Your task to perform on an android device: Search for "beats solo 3" on target, select the first entry, and add it to the cart. Image 0: 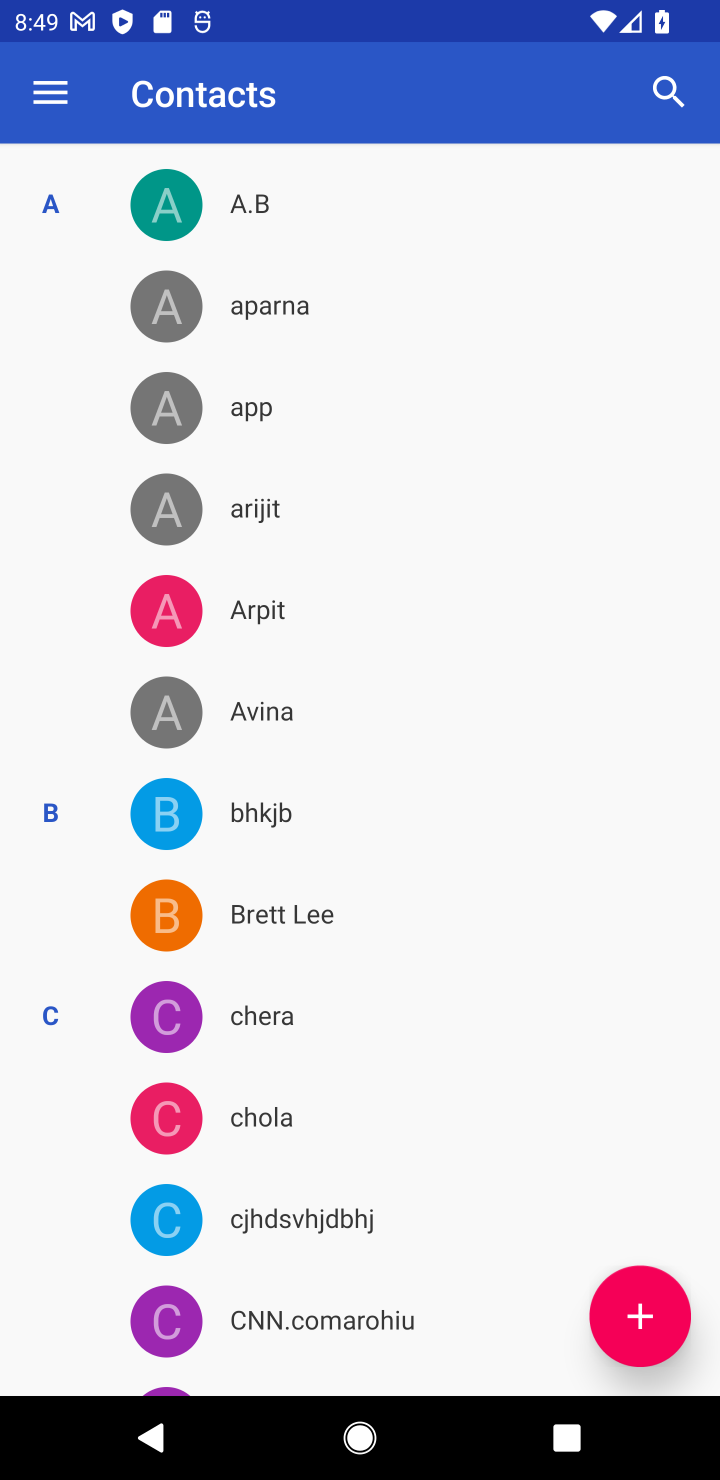
Step 0: press home button
Your task to perform on an android device: Search for "beats solo 3" on target, select the first entry, and add it to the cart. Image 1: 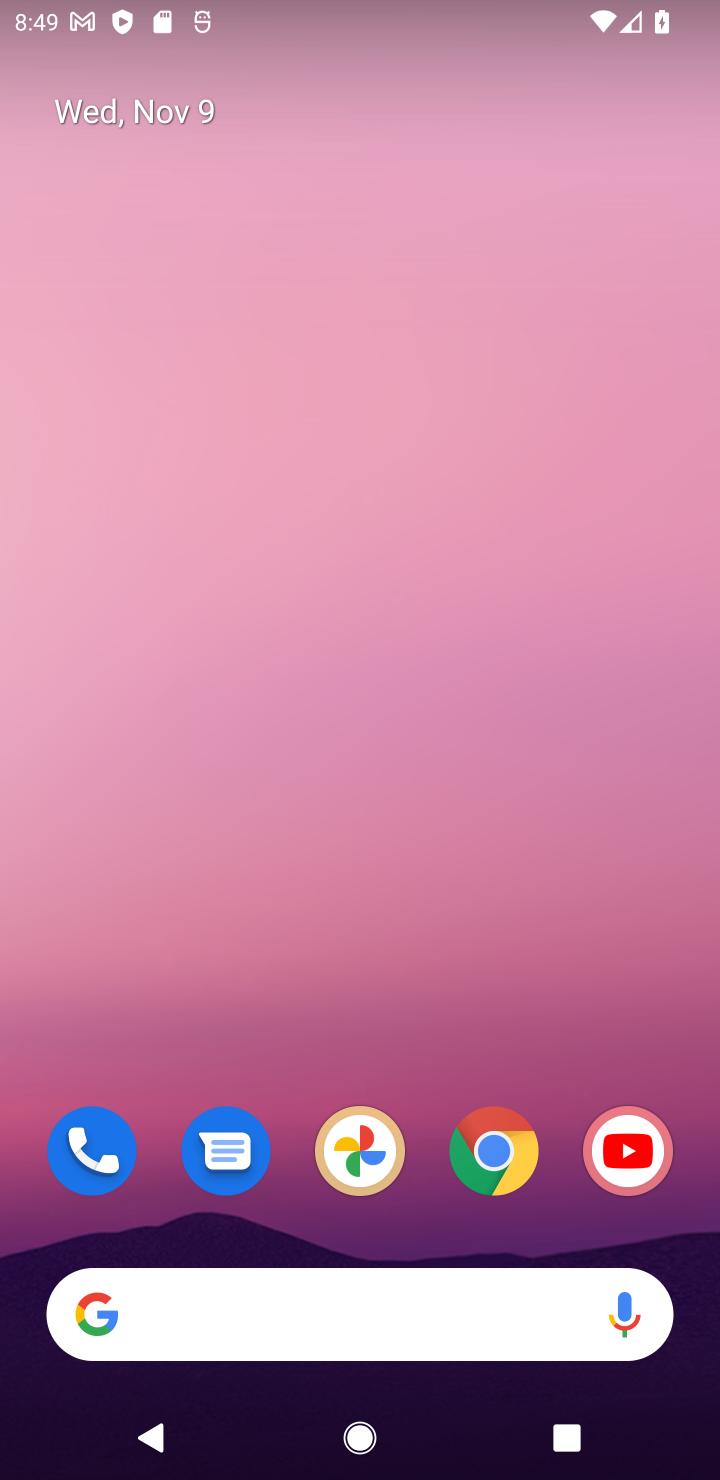
Step 1: click (490, 1160)
Your task to perform on an android device: Search for "beats solo 3" on target, select the first entry, and add it to the cart. Image 2: 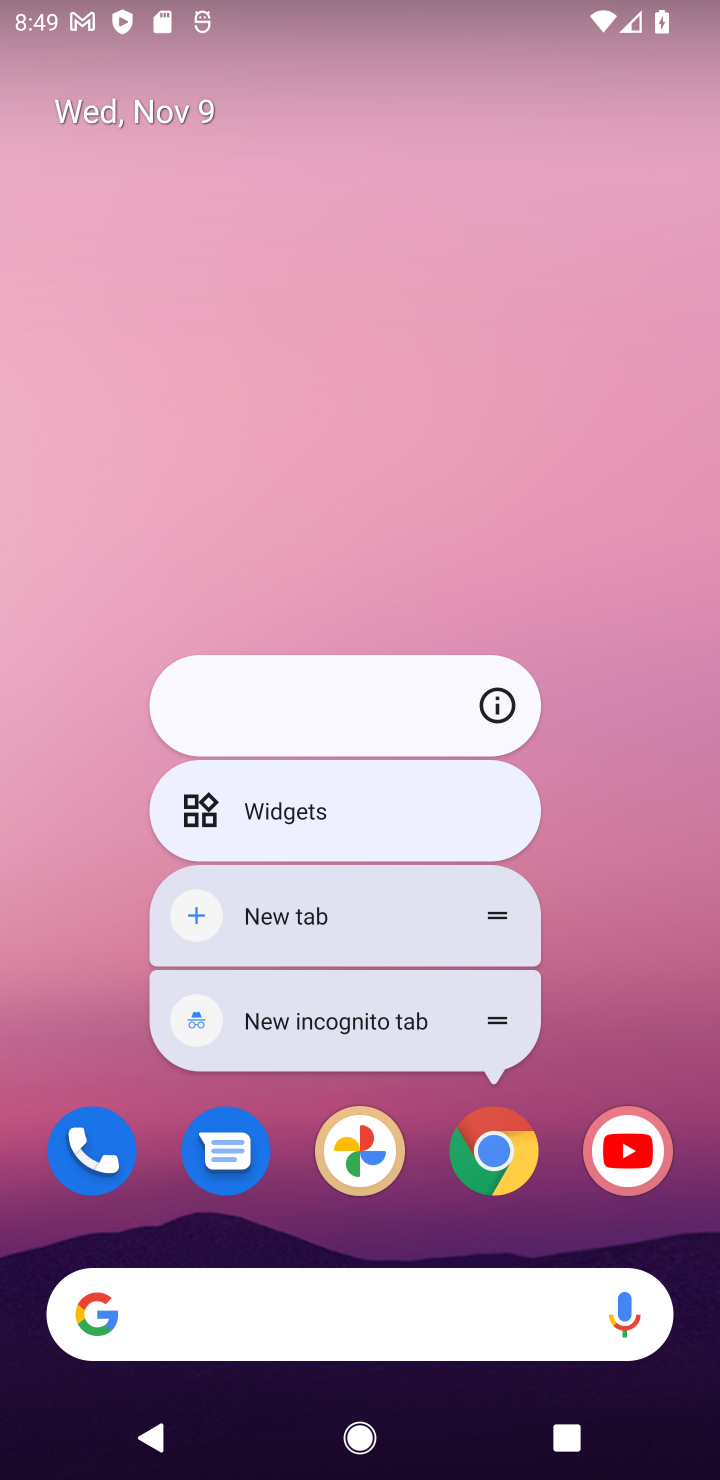
Step 2: click (470, 1177)
Your task to perform on an android device: Search for "beats solo 3" on target, select the first entry, and add it to the cart. Image 3: 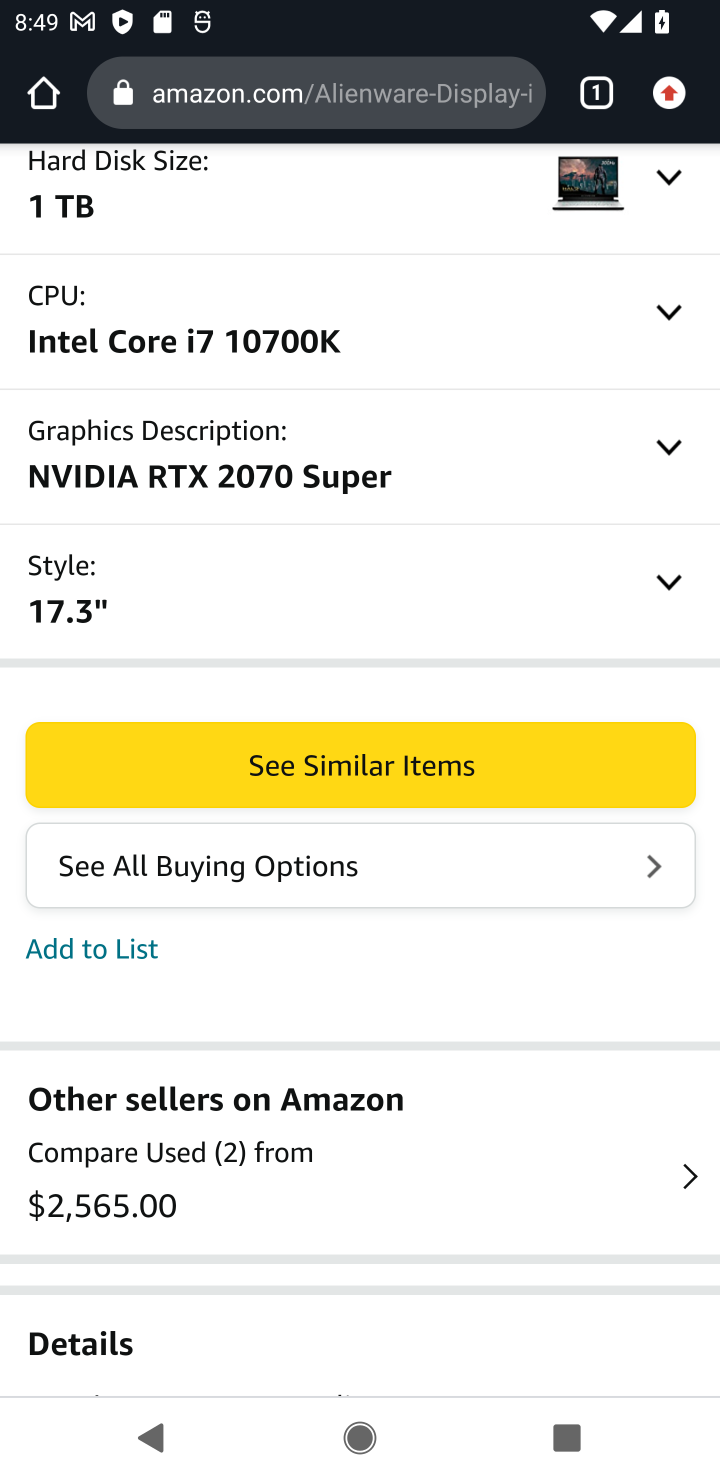
Step 3: click (272, 109)
Your task to perform on an android device: Search for "beats solo 3" on target, select the first entry, and add it to the cart. Image 4: 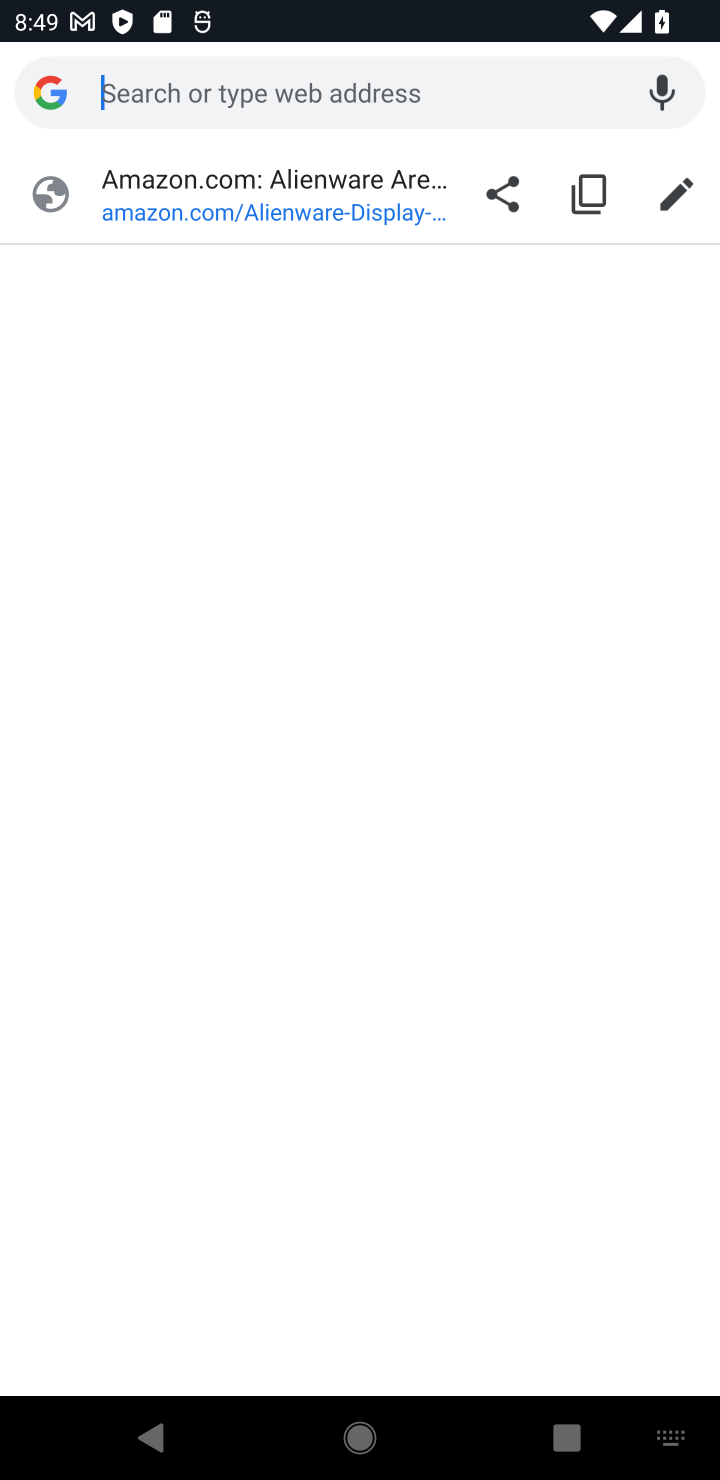
Step 4: type "target"
Your task to perform on an android device: Search for "beats solo 3" on target, select the first entry, and add it to the cart. Image 5: 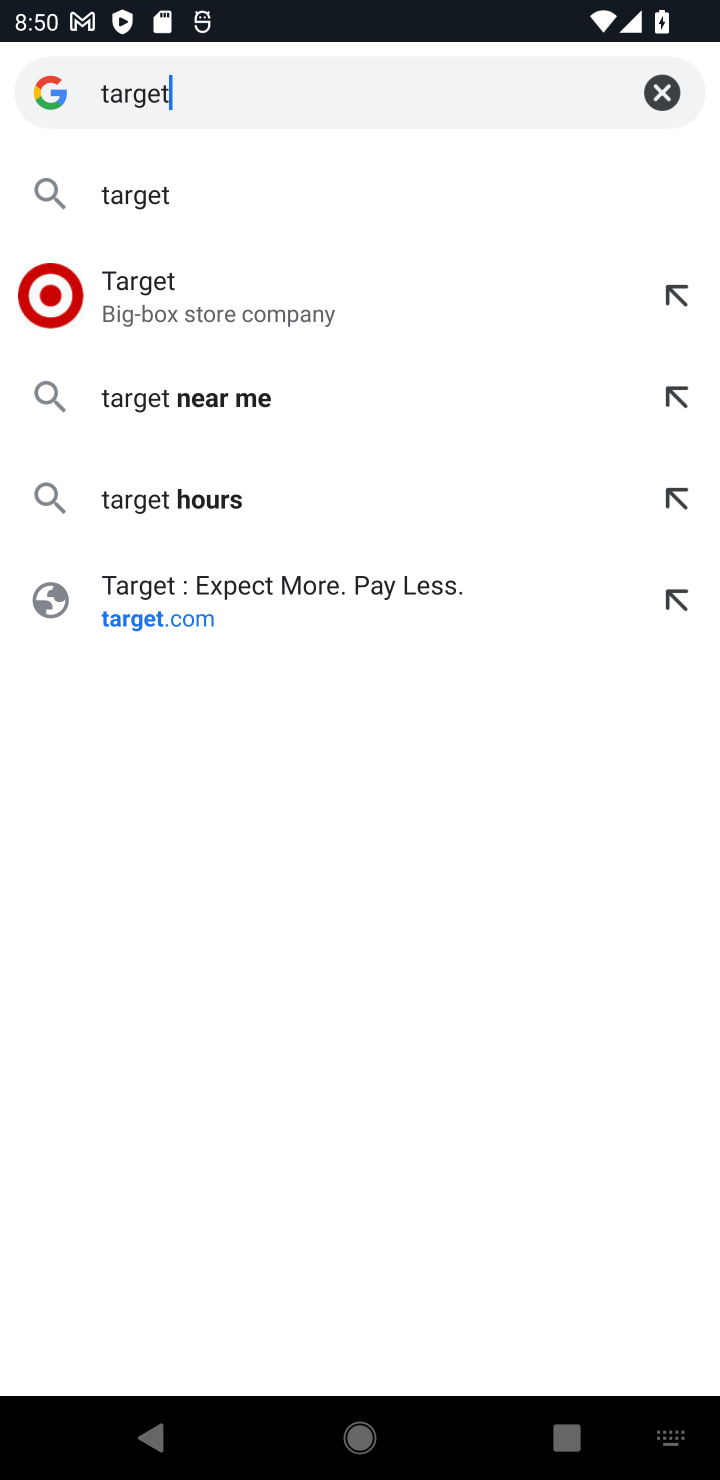
Step 5: click (233, 294)
Your task to perform on an android device: Search for "beats solo 3" on target, select the first entry, and add it to the cart. Image 6: 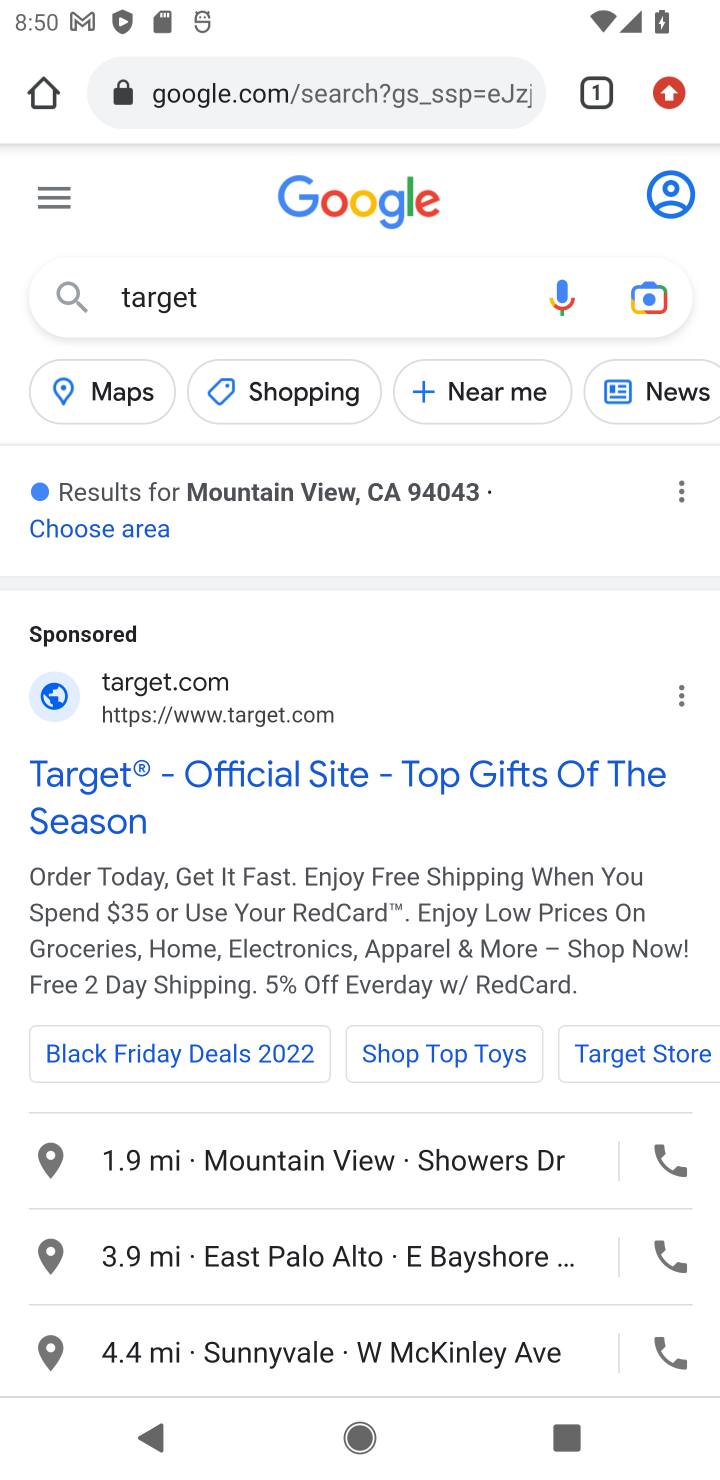
Step 6: drag from (246, 1173) to (240, 793)
Your task to perform on an android device: Search for "beats solo 3" on target, select the first entry, and add it to the cart. Image 7: 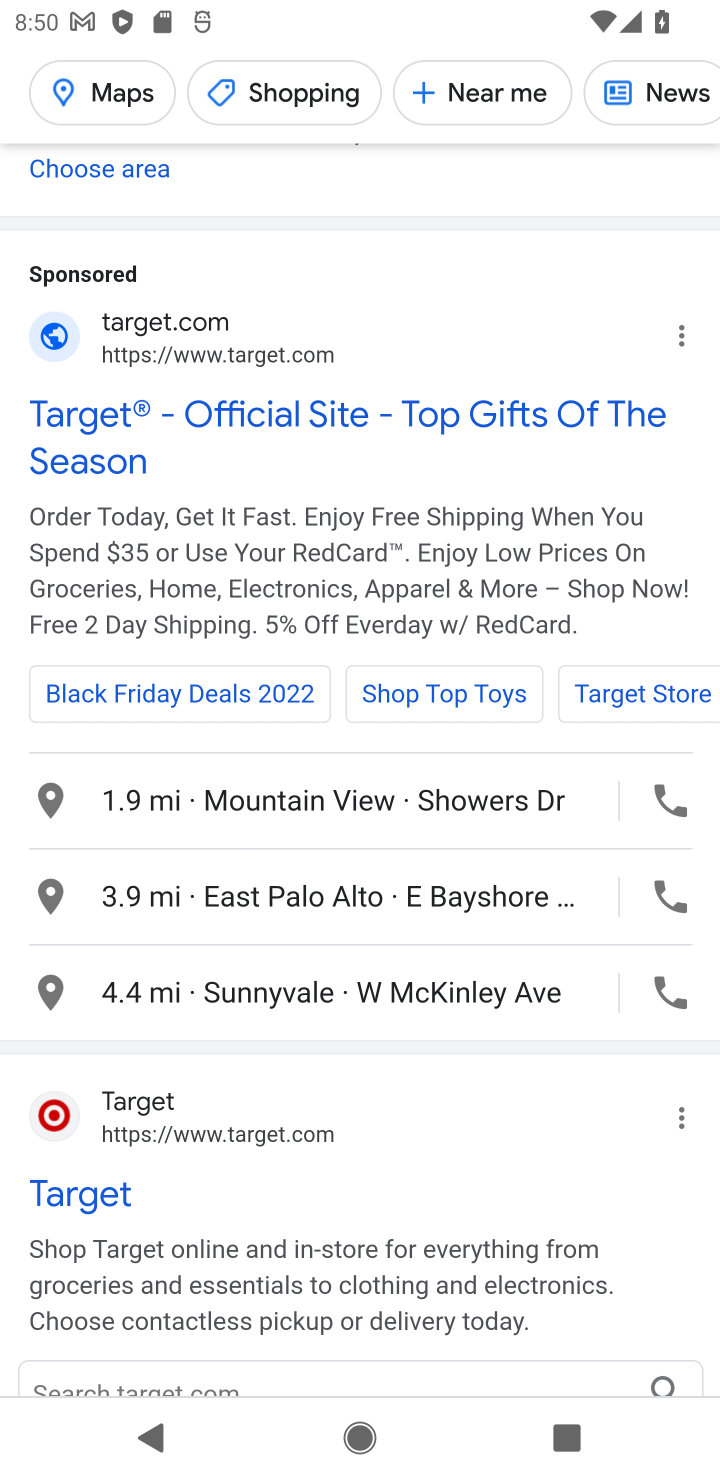
Step 7: click (261, 417)
Your task to perform on an android device: Search for "beats solo 3" on target, select the first entry, and add it to the cart. Image 8: 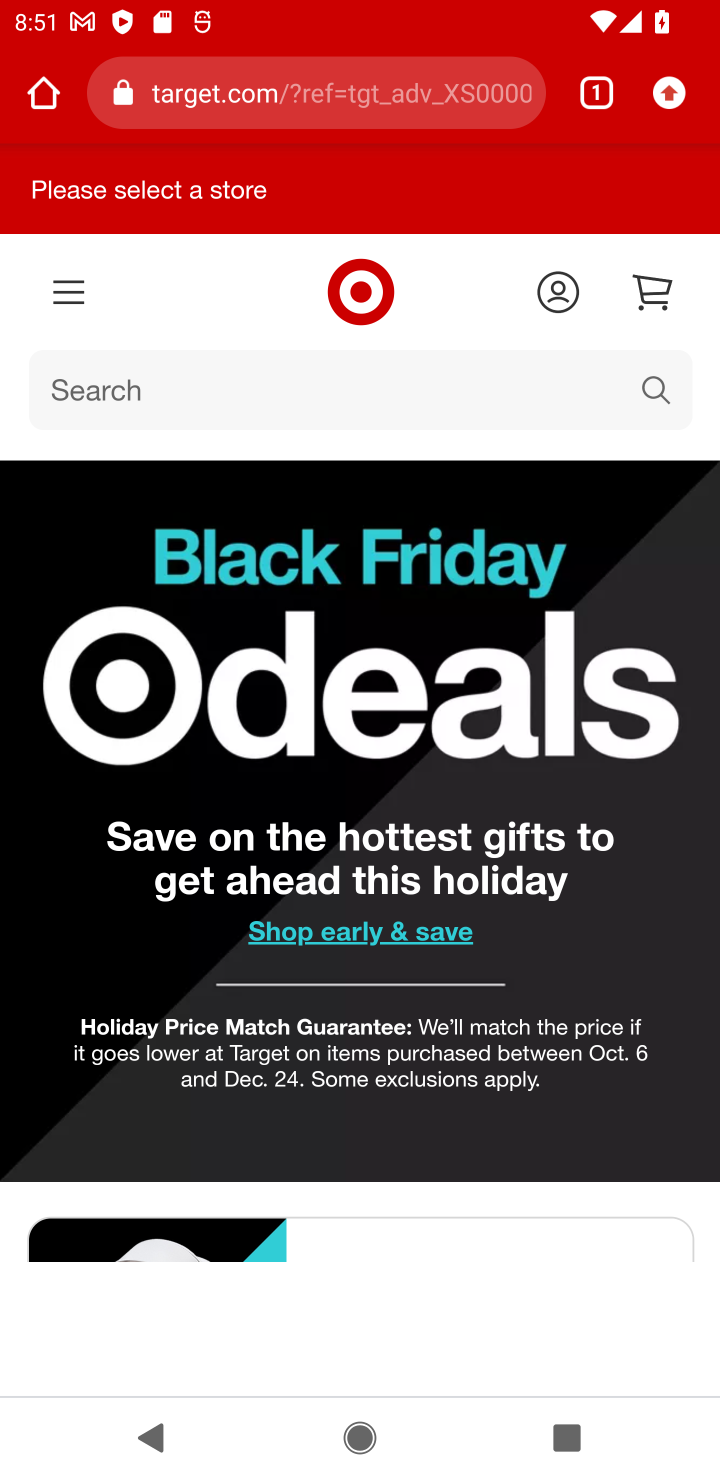
Step 8: click (474, 383)
Your task to perform on an android device: Search for "beats solo 3" on target, select the first entry, and add it to the cart. Image 9: 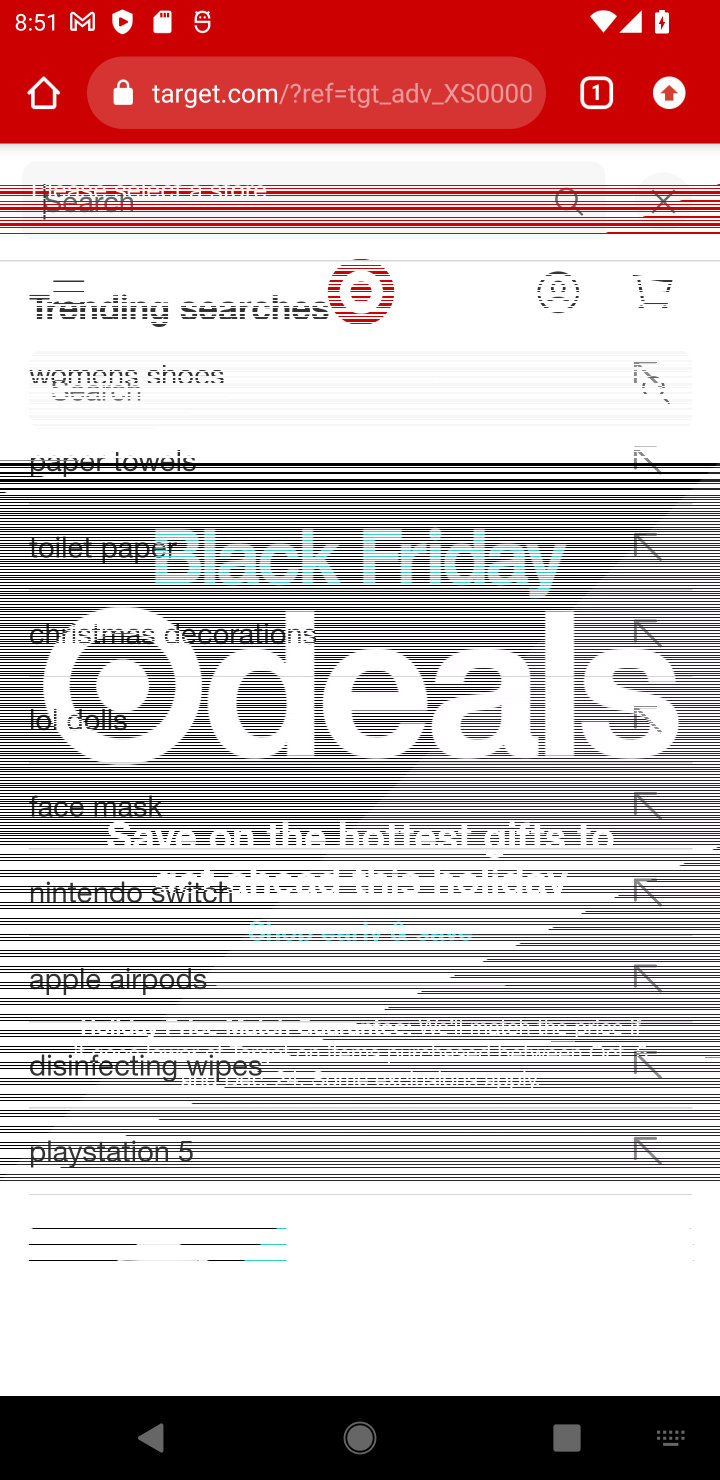
Step 9: type "beats solo 3"
Your task to perform on an android device: Search for "beats solo 3" on target, select the first entry, and add it to the cart. Image 10: 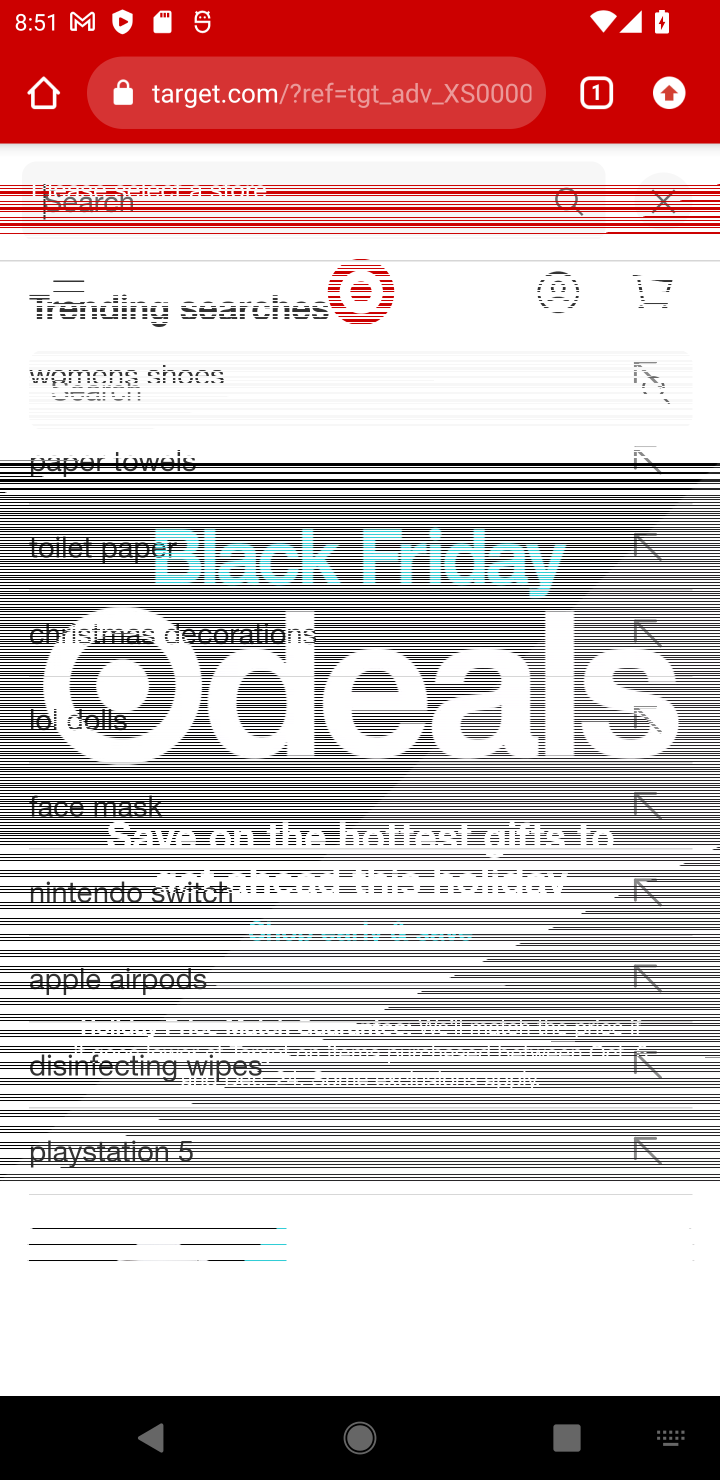
Step 10: press enter
Your task to perform on an android device: Search for "beats solo 3" on target, select the first entry, and add it to the cart. Image 11: 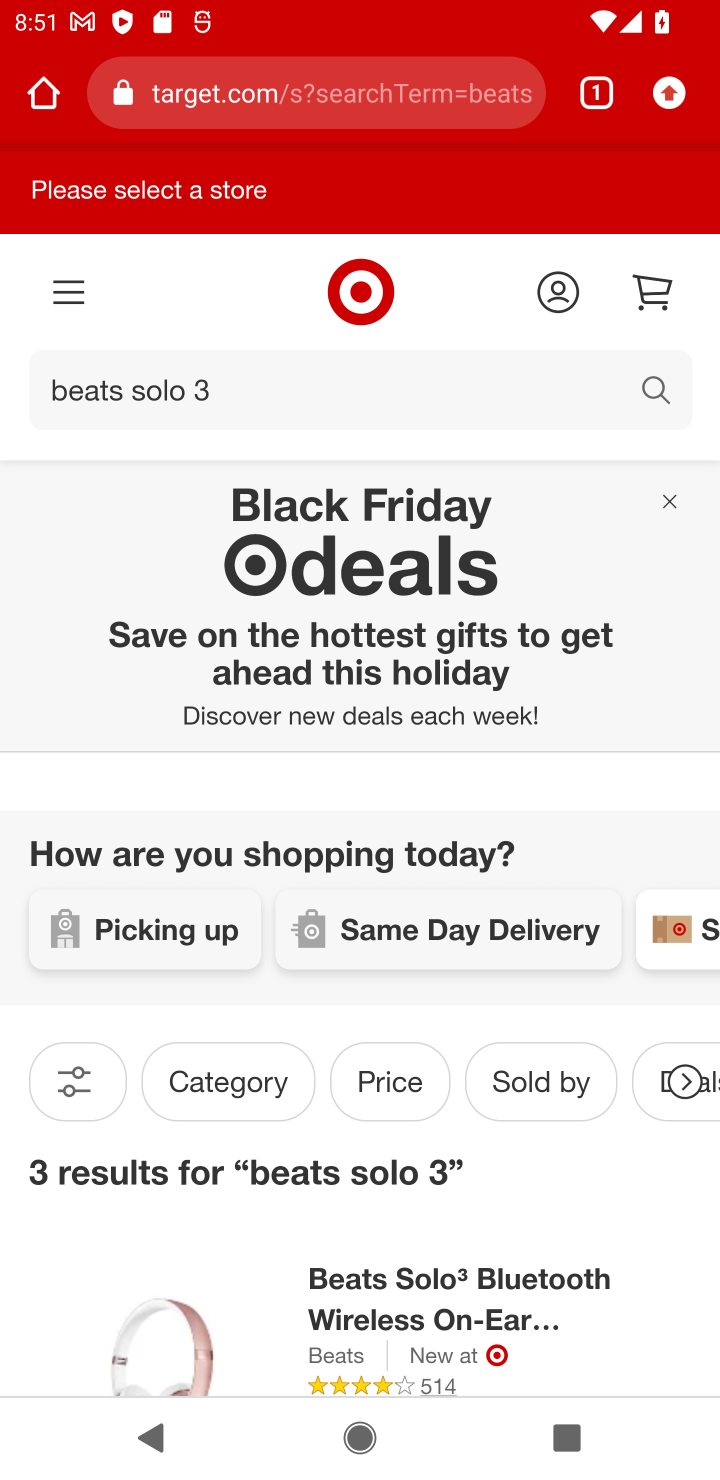
Step 11: drag from (302, 1121) to (314, 756)
Your task to perform on an android device: Search for "beats solo 3" on target, select the first entry, and add it to the cart. Image 12: 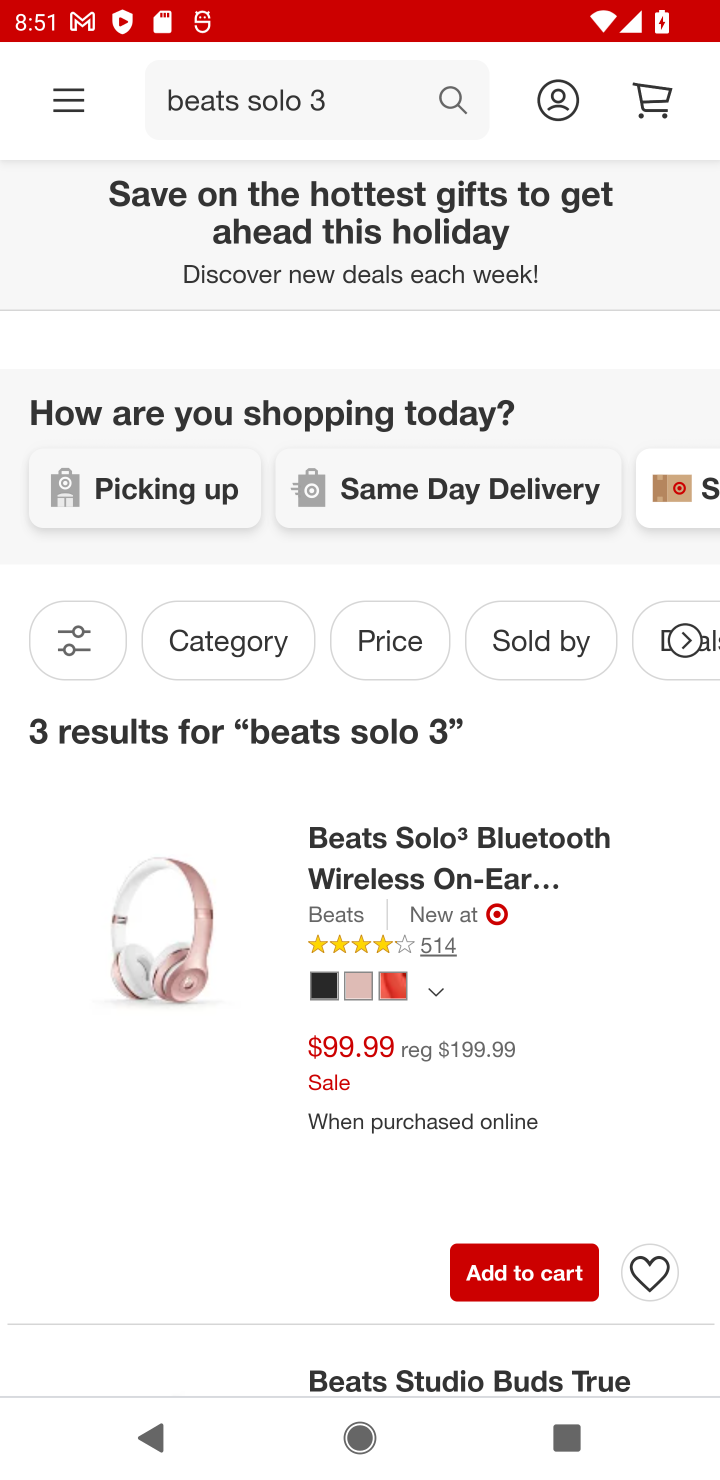
Step 12: click (468, 1282)
Your task to perform on an android device: Search for "beats solo 3" on target, select the first entry, and add it to the cart. Image 13: 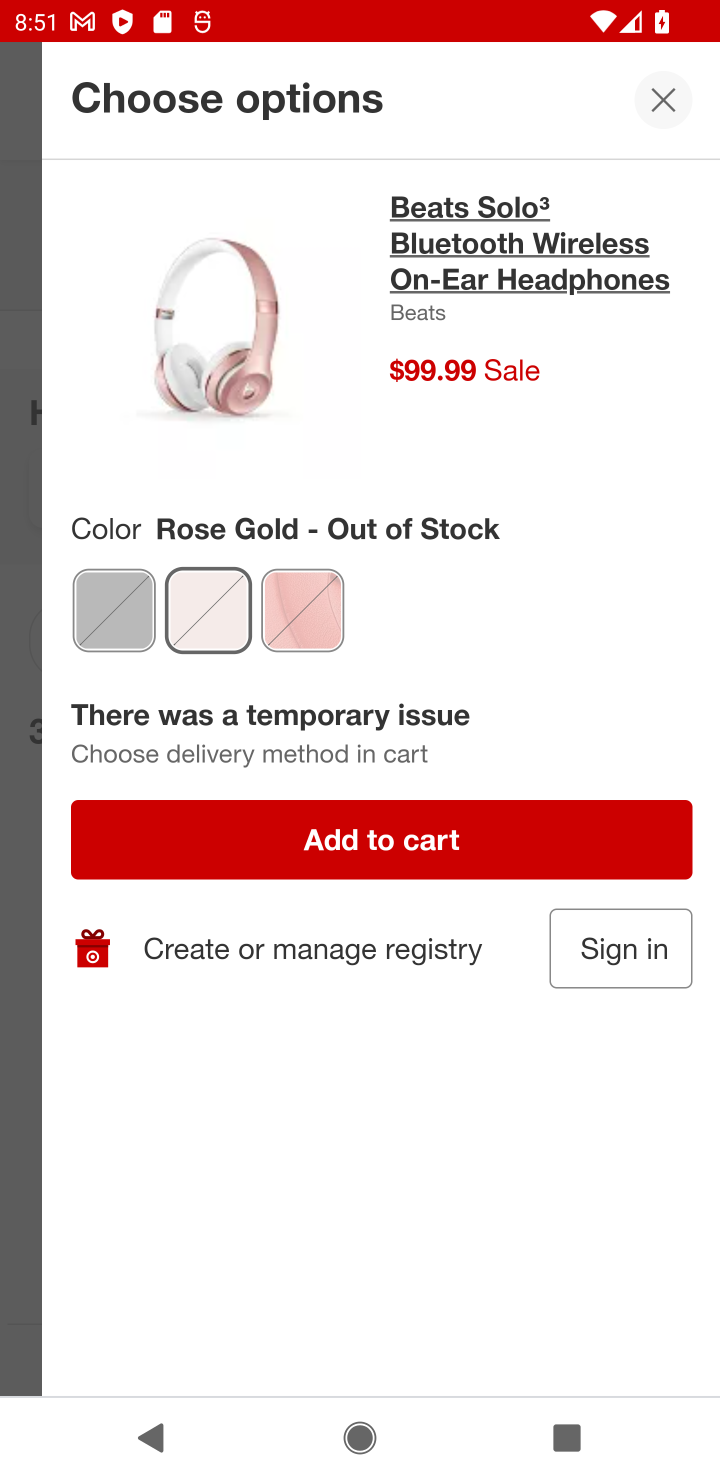
Step 13: click (313, 834)
Your task to perform on an android device: Search for "beats solo 3" on target, select the first entry, and add it to the cart. Image 14: 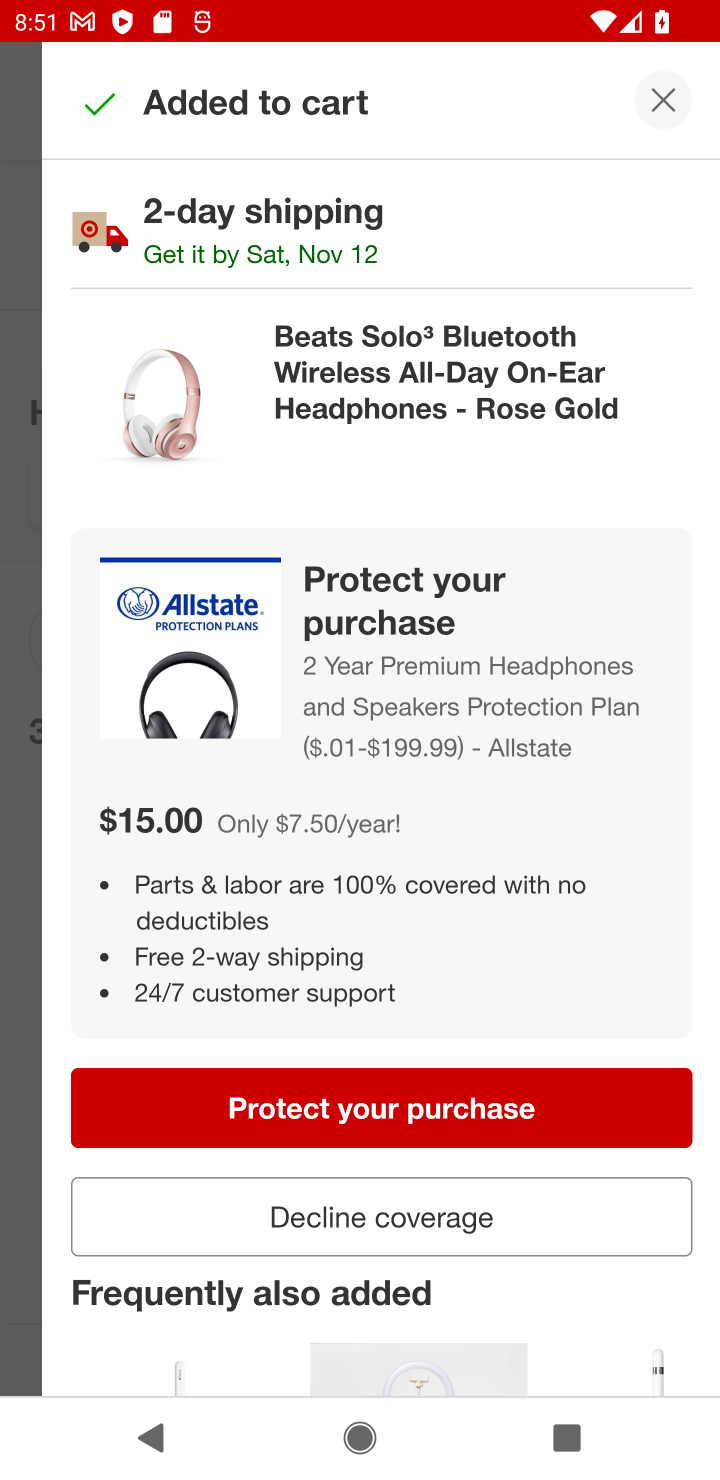
Step 14: task complete